Your task to perform on an android device: add a contact in the contacts app Image 0: 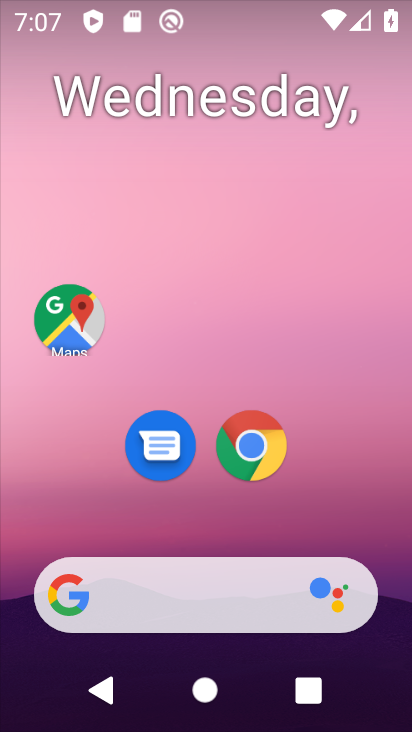
Step 0: drag from (290, 489) to (244, 182)
Your task to perform on an android device: add a contact in the contacts app Image 1: 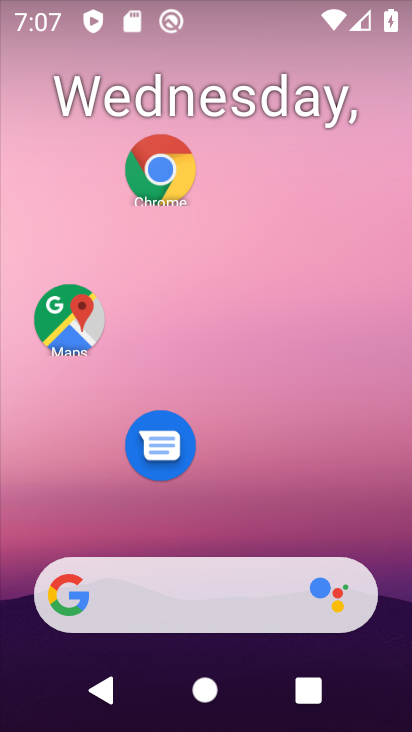
Step 1: drag from (329, 462) to (193, 10)
Your task to perform on an android device: add a contact in the contacts app Image 2: 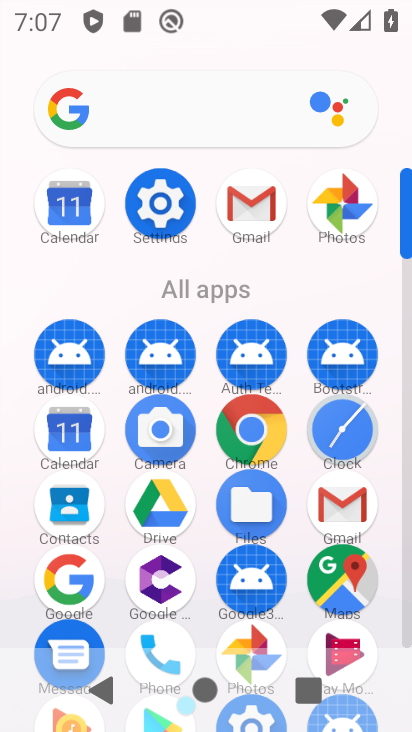
Step 2: click (402, 577)
Your task to perform on an android device: add a contact in the contacts app Image 3: 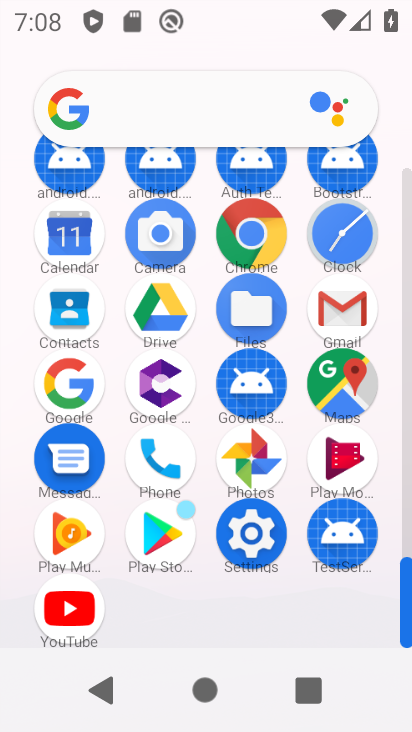
Step 3: drag from (193, 186) to (191, 626)
Your task to perform on an android device: add a contact in the contacts app Image 4: 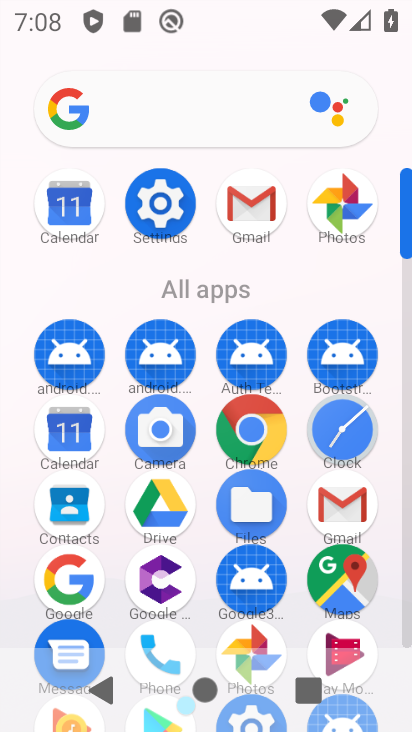
Step 4: click (68, 526)
Your task to perform on an android device: add a contact in the contacts app Image 5: 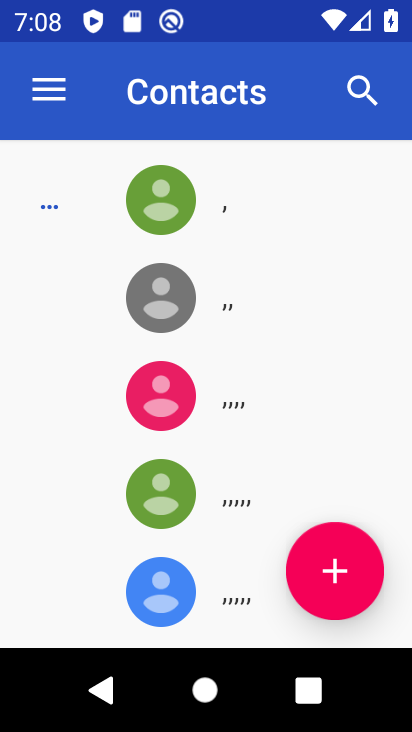
Step 5: drag from (245, 479) to (236, 317)
Your task to perform on an android device: add a contact in the contacts app Image 6: 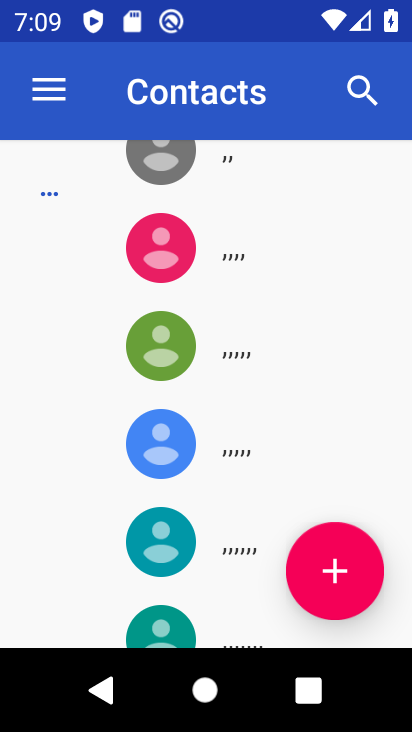
Step 6: click (324, 576)
Your task to perform on an android device: add a contact in the contacts app Image 7: 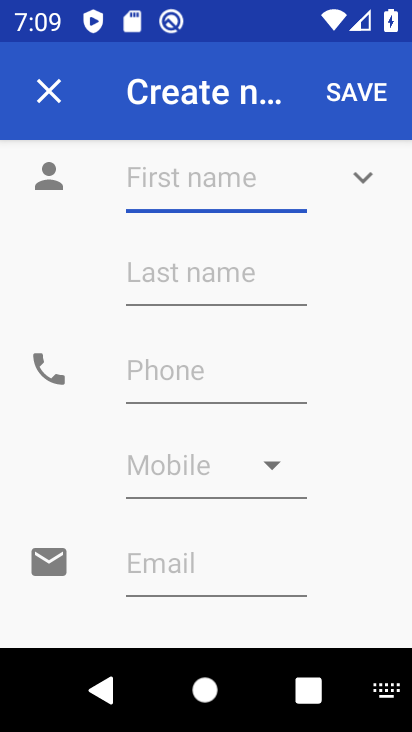
Step 7: click (234, 181)
Your task to perform on an android device: add a contact in the contacts app Image 8: 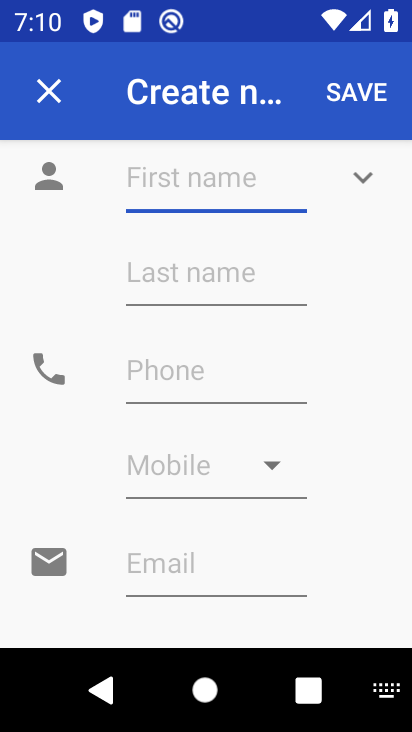
Step 8: type "iam priyanshu"
Your task to perform on an android device: add a contact in the contacts app Image 9: 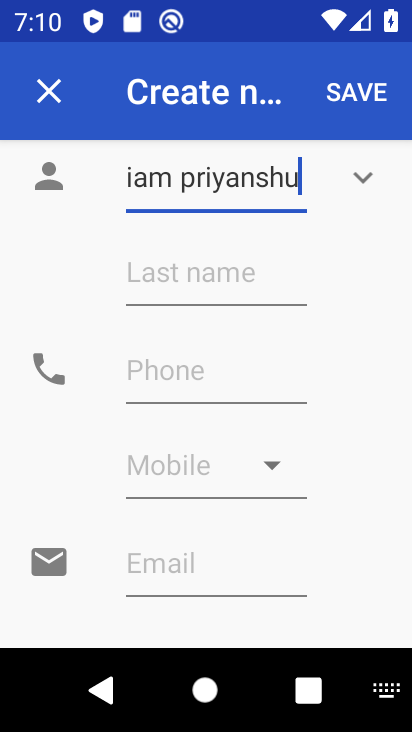
Step 9: click (180, 368)
Your task to perform on an android device: add a contact in the contacts app Image 10: 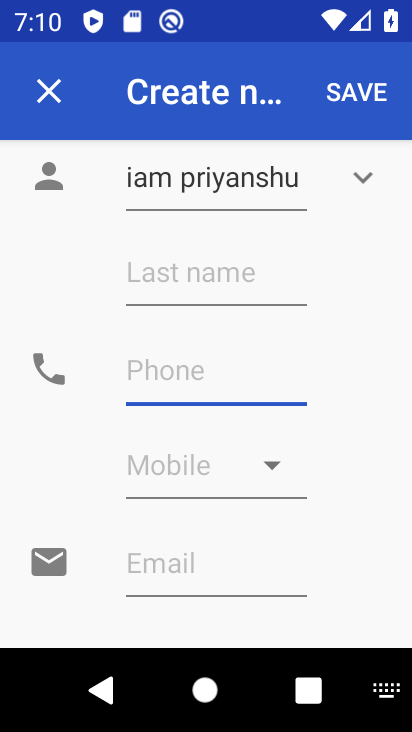
Step 10: type "63728347"
Your task to perform on an android device: add a contact in the contacts app Image 11: 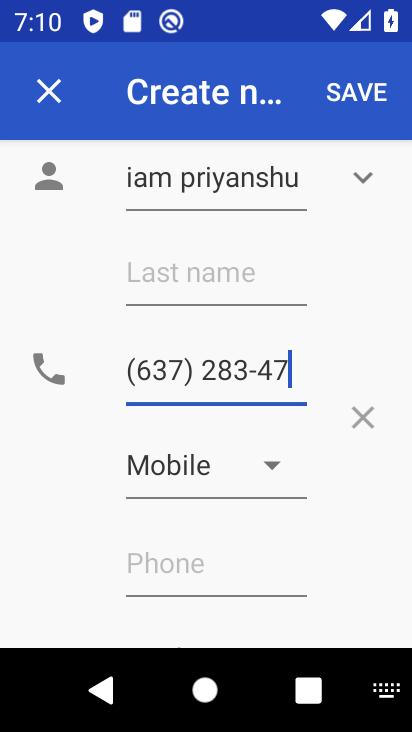
Step 11: click (369, 107)
Your task to perform on an android device: add a contact in the contacts app Image 12: 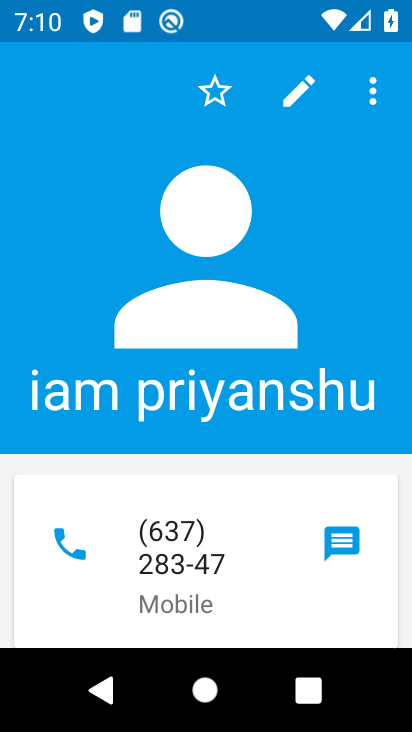
Step 12: task complete